Your task to perform on an android device: turn on the 24-hour format for clock Image 0: 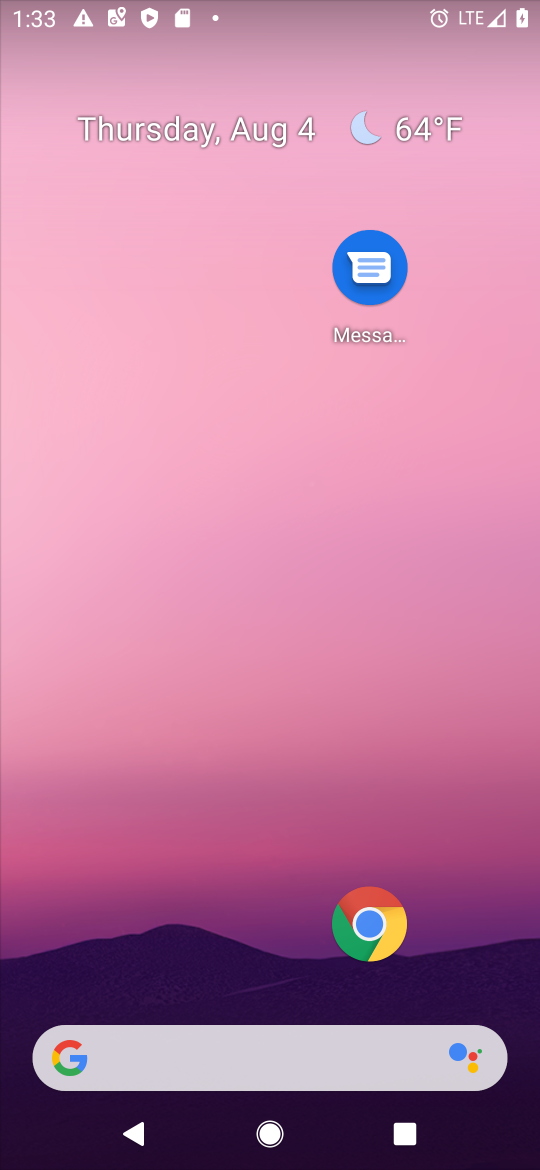
Step 0: drag from (52, 1088) to (271, 210)
Your task to perform on an android device: turn on the 24-hour format for clock Image 1: 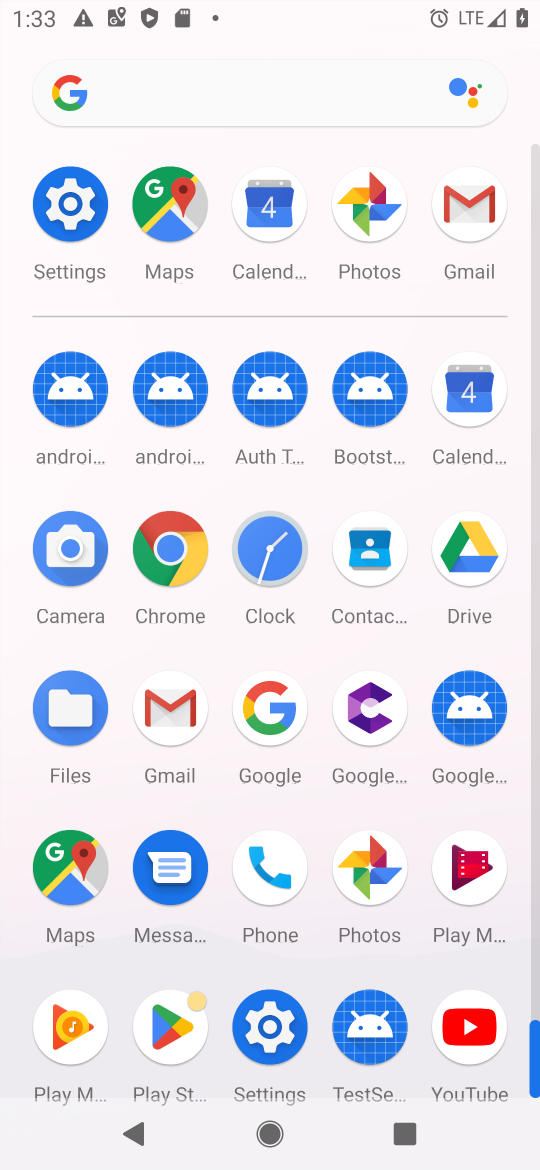
Step 1: click (264, 549)
Your task to perform on an android device: turn on the 24-hour format for clock Image 2: 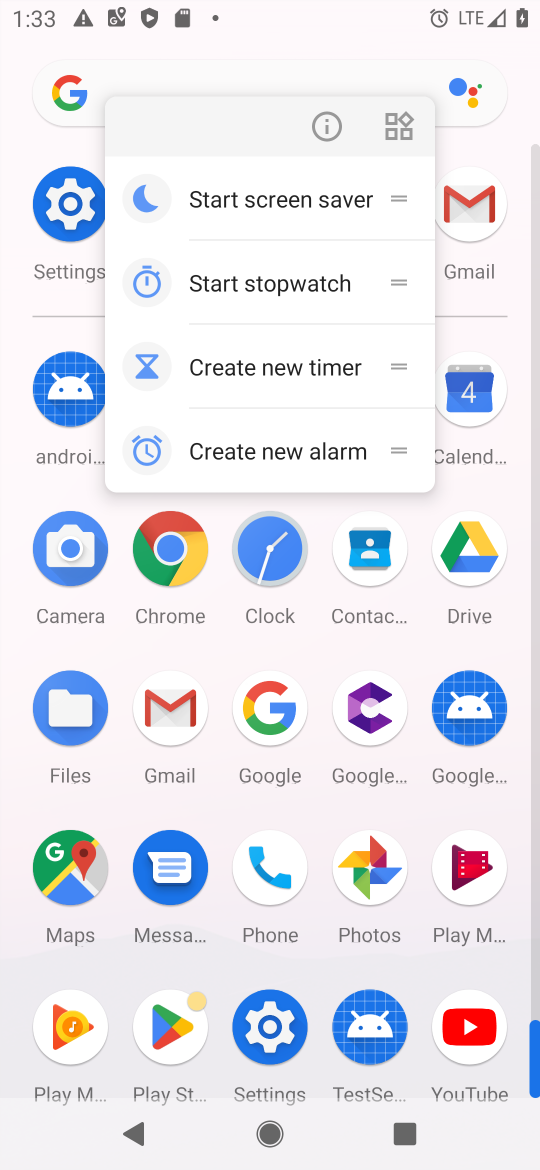
Step 2: click (277, 573)
Your task to perform on an android device: turn on the 24-hour format for clock Image 3: 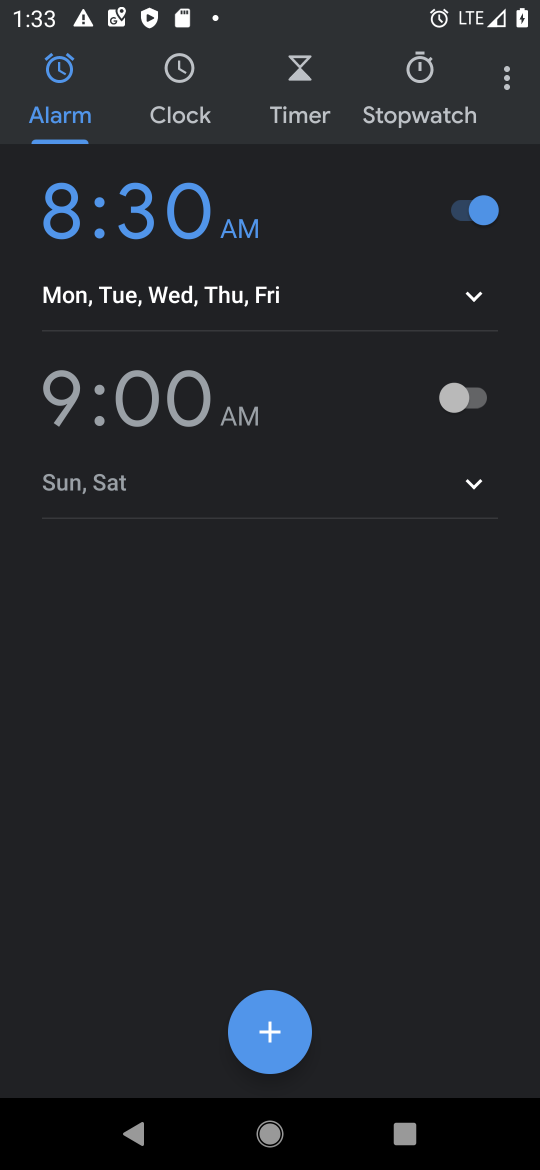
Step 3: click (505, 74)
Your task to perform on an android device: turn on the 24-hour format for clock Image 4: 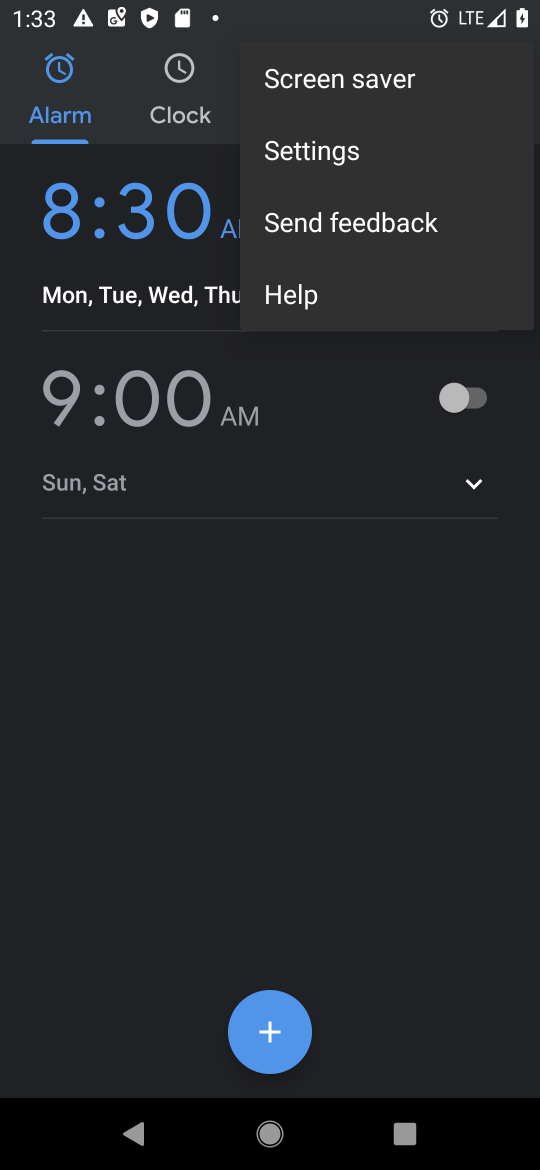
Step 4: click (322, 157)
Your task to perform on an android device: turn on the 24-hour format for clock Image 5: 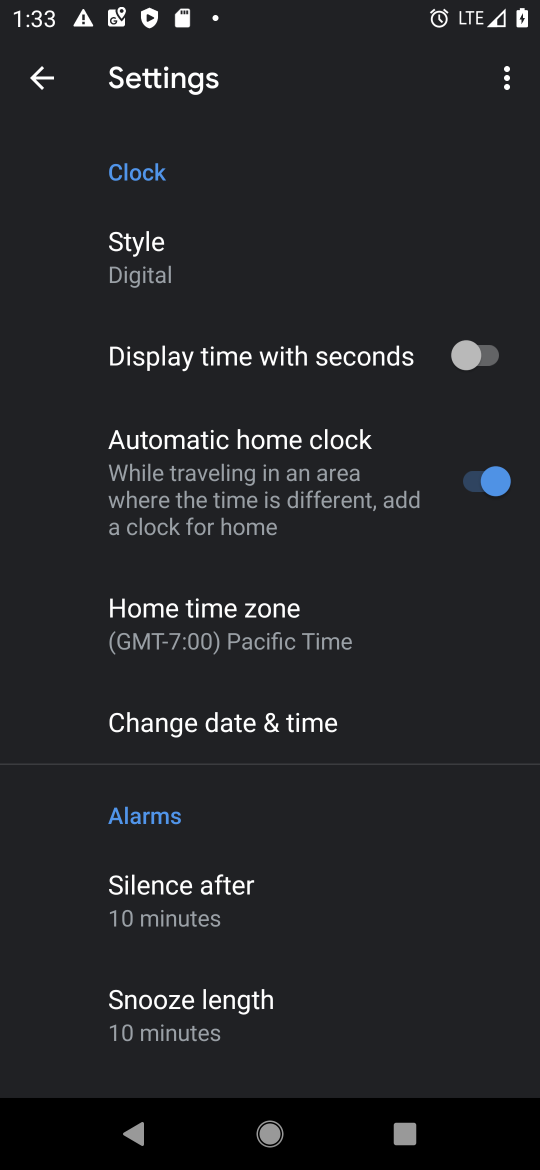
Step 5: drag from (250, 1018) to (261, 404)
Your task to perform on an android device: turn on the 24-hour format for clock Image 6: 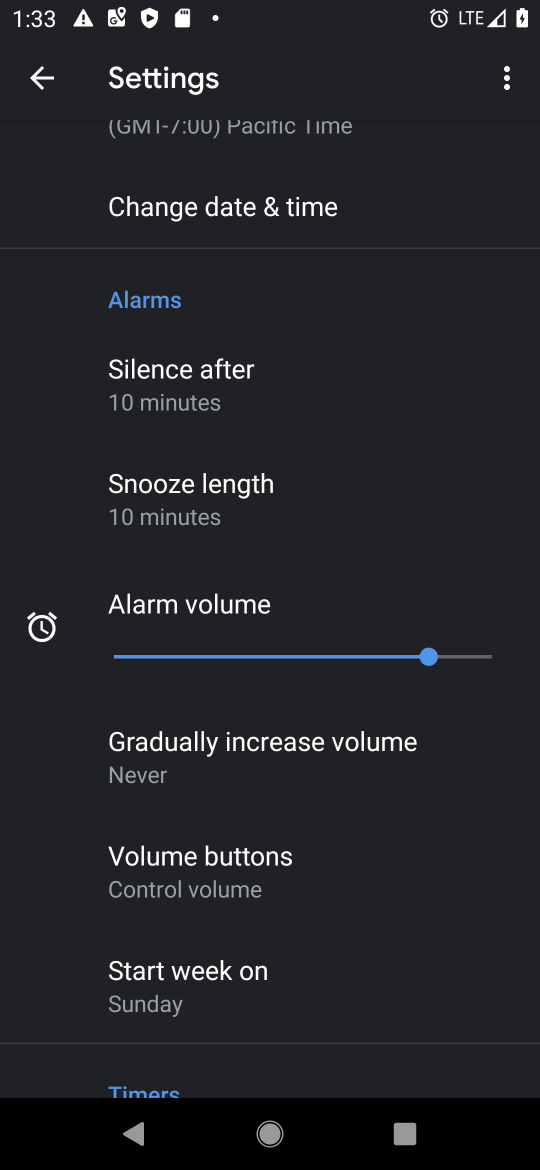
Step 6: drag from (319, 150) to (291, 1016)
Your task to perform on an android device: turn on the 24-hour format for clock Image 7: 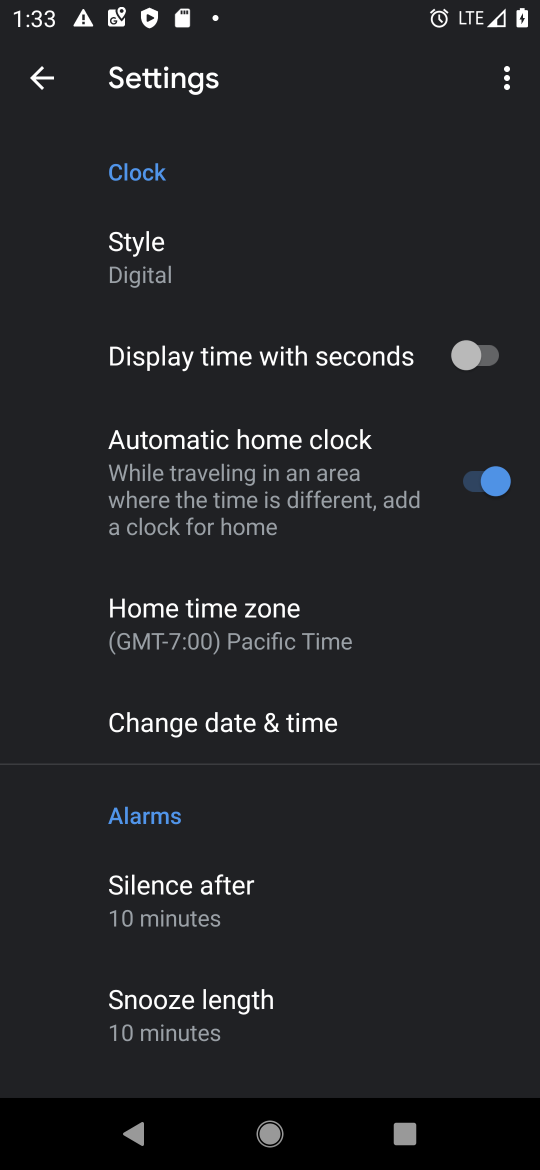
Step 7: click (233, 720)
Your task to perform on an android device: turn on the 24-hour format for clock Image 8: 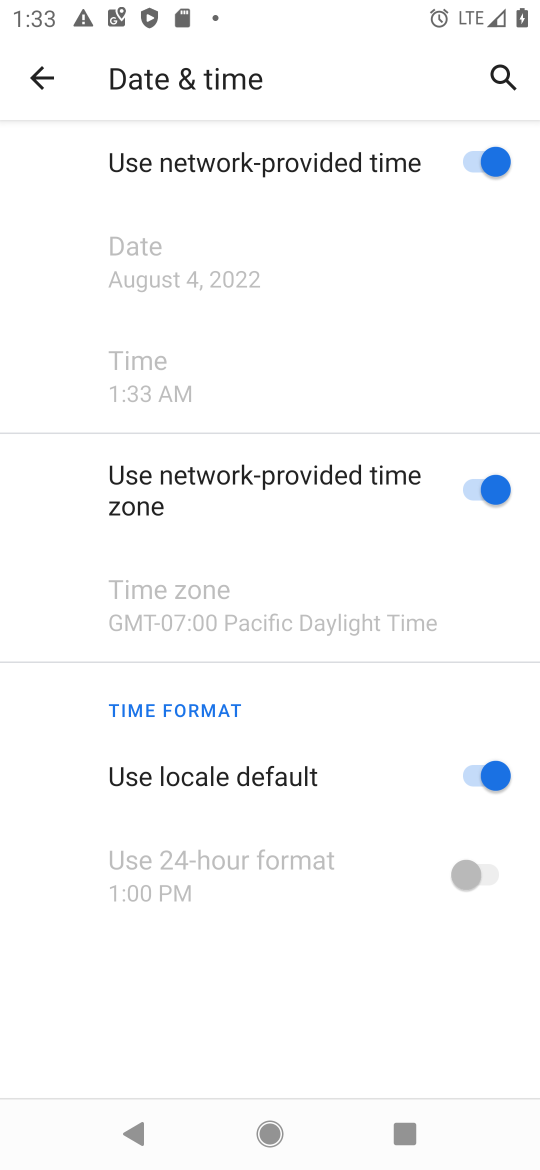
Step 8: click (499, 779)
Your task to perform on an android device: turn on the 24-hour format for clock Image 9: 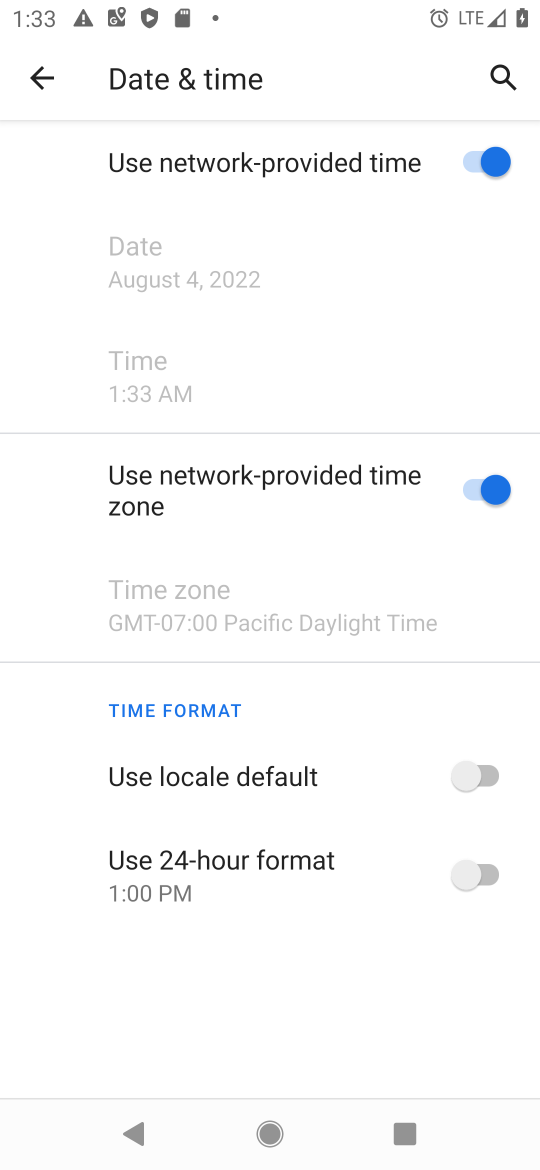
Step 9: click (477, 879)
Your task to perform on an android device: turn on the 24-hour format for clock Image 10: 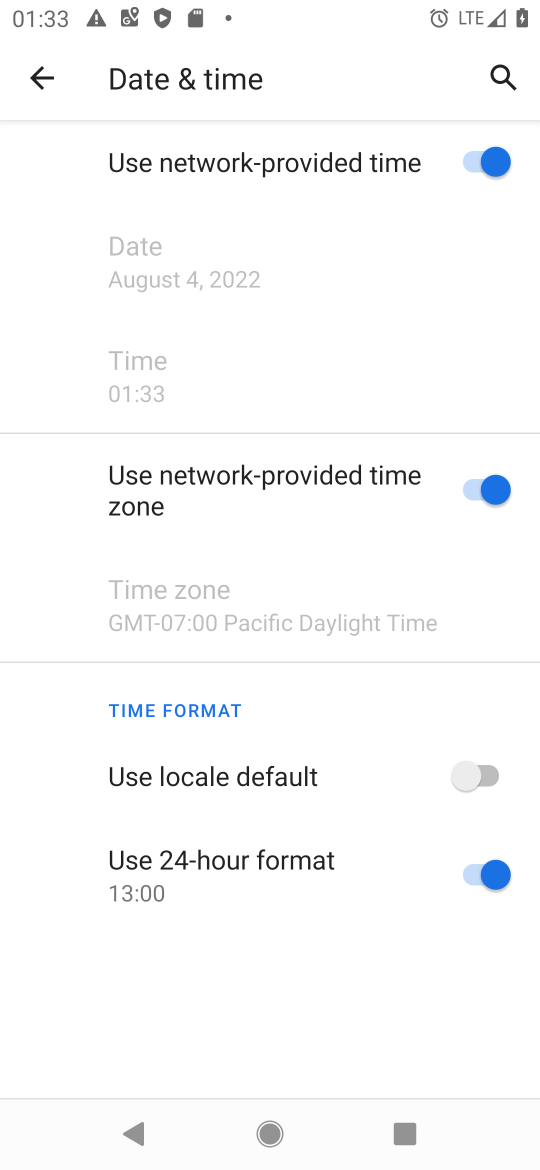
Step 10: task complete